Your task to perform on an android device: Do I have any events this weekend? Image 0: 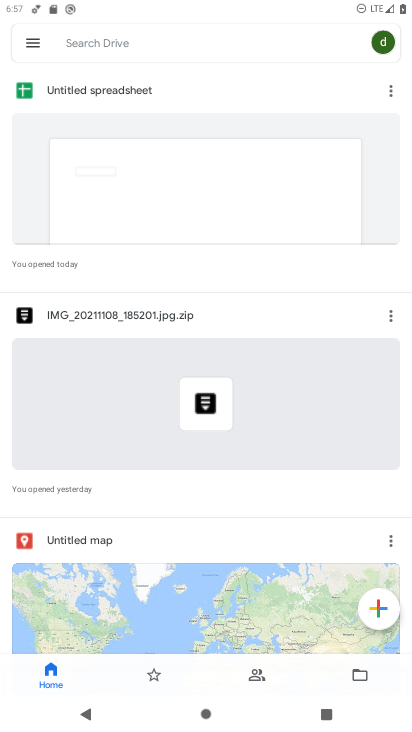
Step 0: press home button
Your task to perform on an android device: Do I have any events this weekend? Image 1: 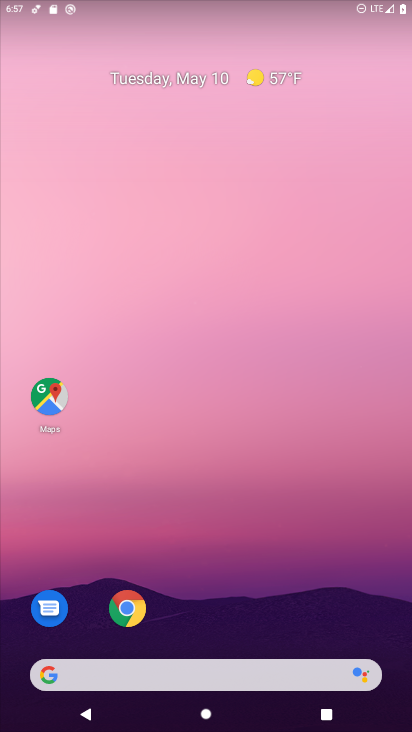
Step 1: drag from (308, 595) to (292, 6)
Your task to perform on an android device: Do I have any events this weekend? Image 2: 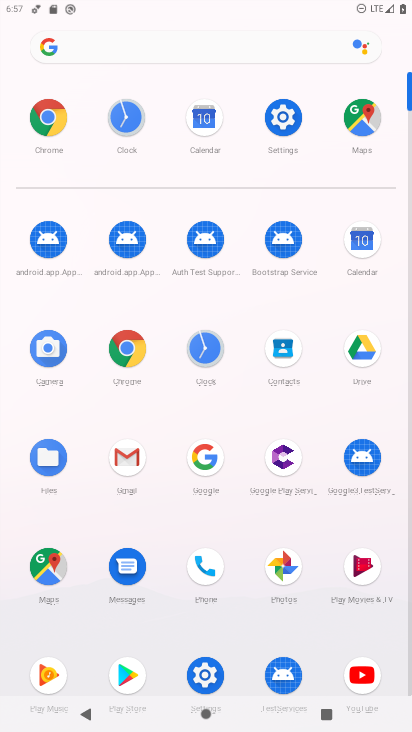
Step 2: click (359, 245)
Your task to perform on an android device: Do I have any events this weekend? Image 3: 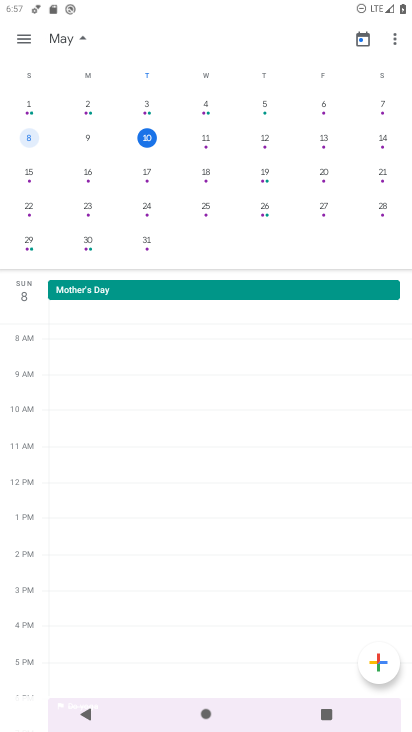
Step 3: click (23, 40)
Your task to perform on an android device: Do I have any events this weekend? Image 4: 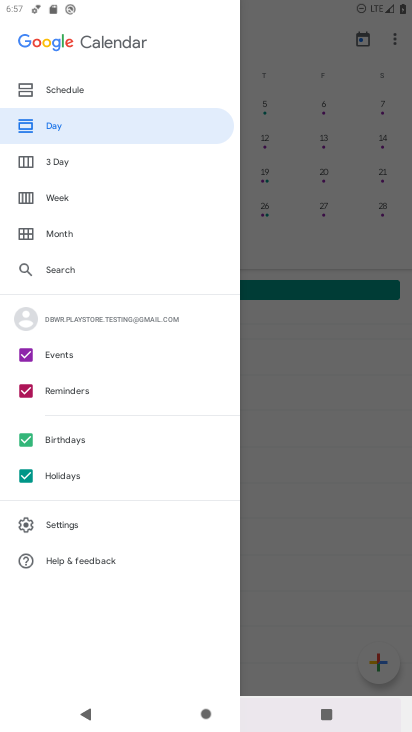
Step 4: click (78, 93)
Your task to perform on an android device: Do I have any events this weekend? Image 5: 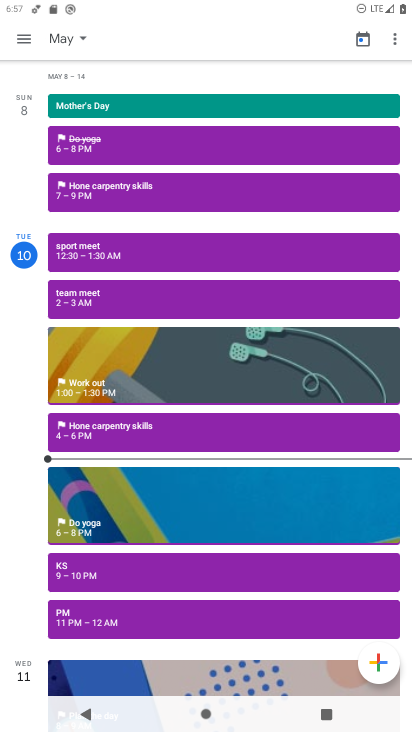
Step 5: task complete